Your task to perform on an android device: turn off notifications in google photos Image 0: 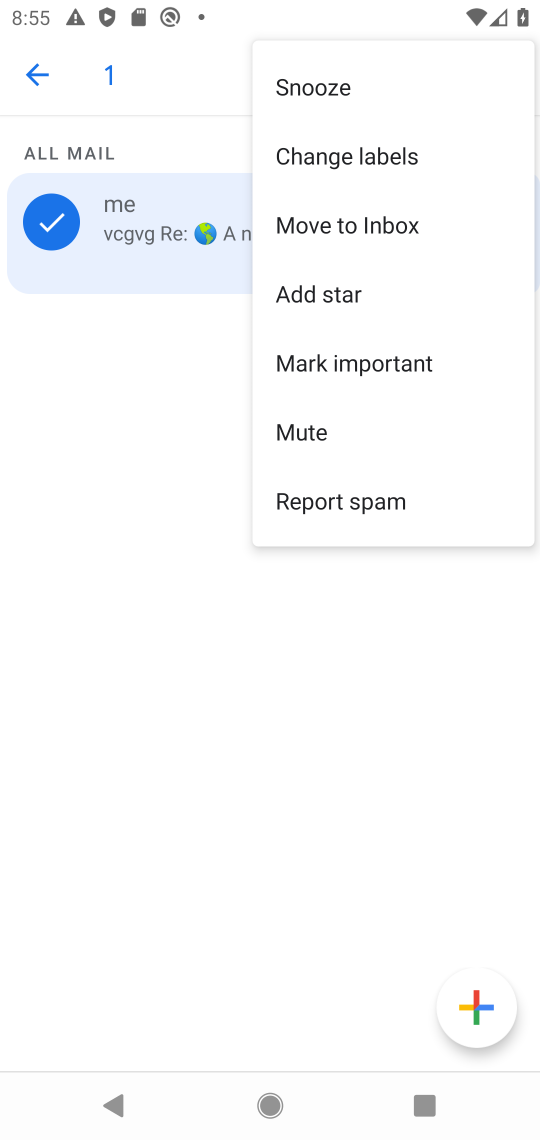
Step 0: press home button
Your task to perform on an android device: turn off notifications in google photos Image 1: 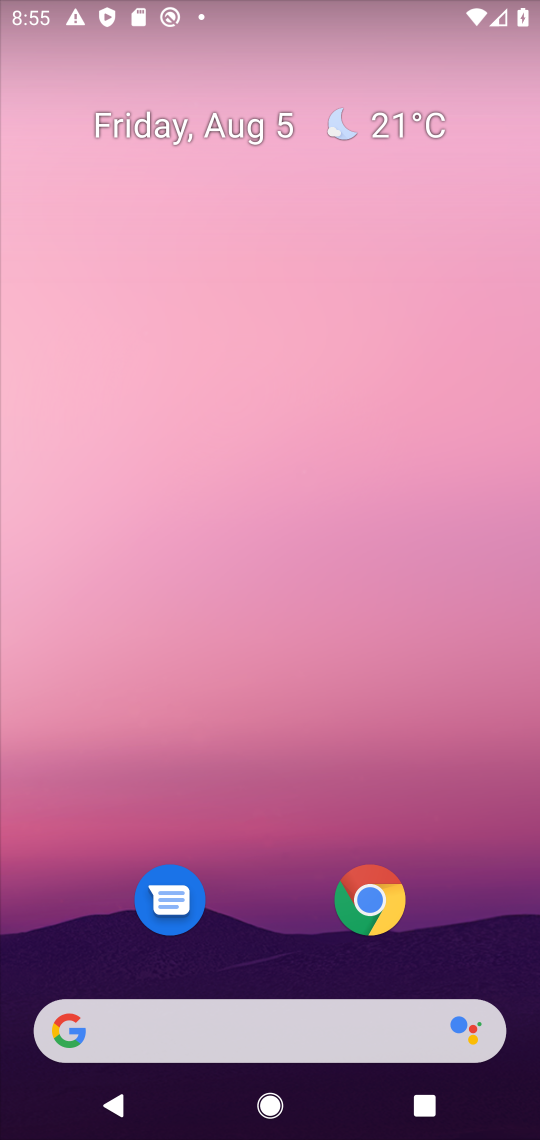
Step 1: drag from (266, 855) to (391, 71)
Your task to perform on an android device: turn off notifications in google photos Image 2: 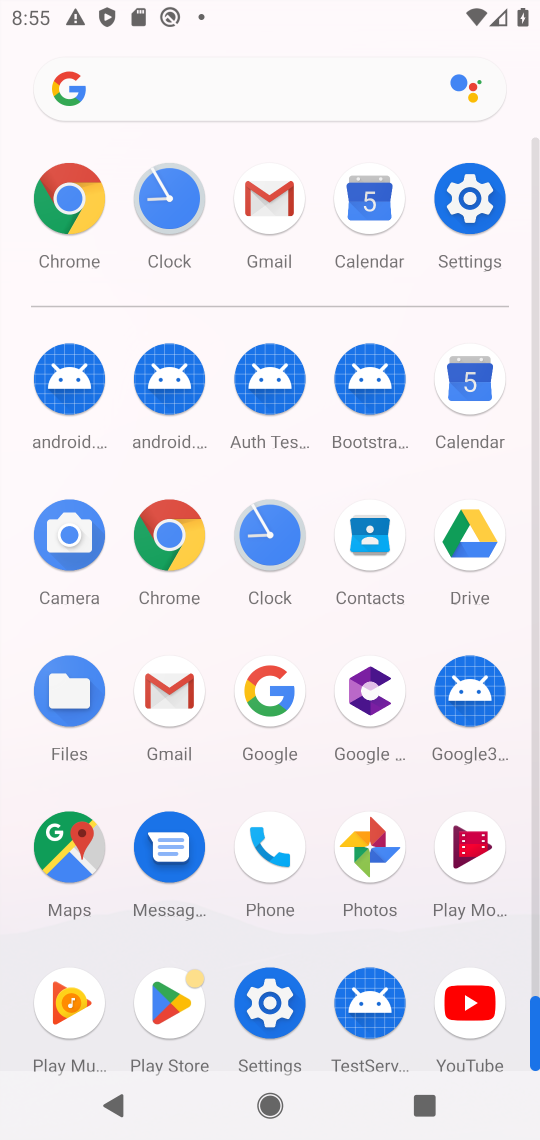
Step 2: click (378, 889)
Your task to perform on an android device: turn off notifications in google photos Image 3: 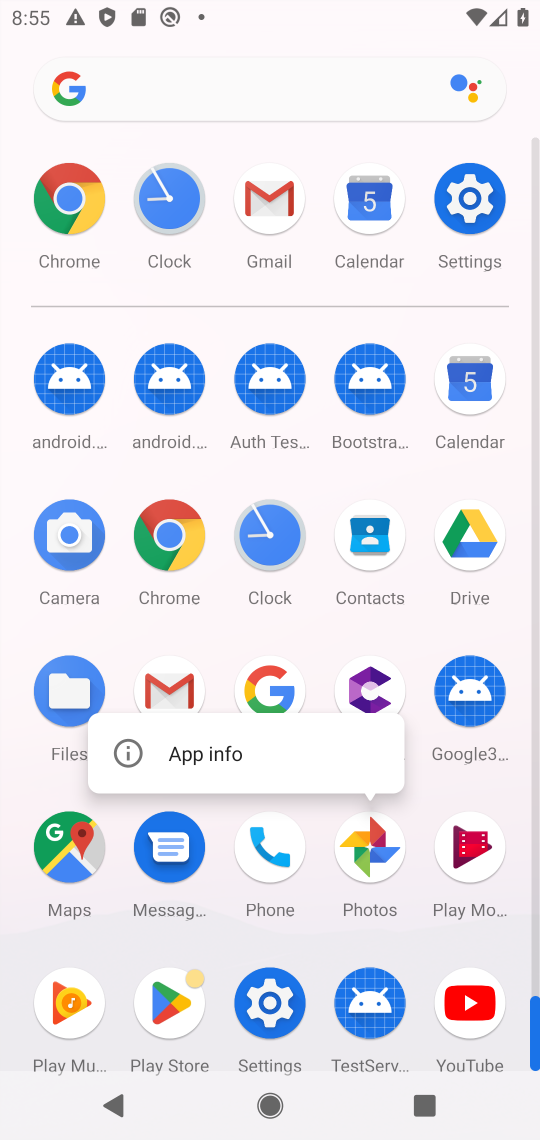
Step 3: click (217, 746)
Your task to perform on an android device: turn off notifications in google photos Image 4: 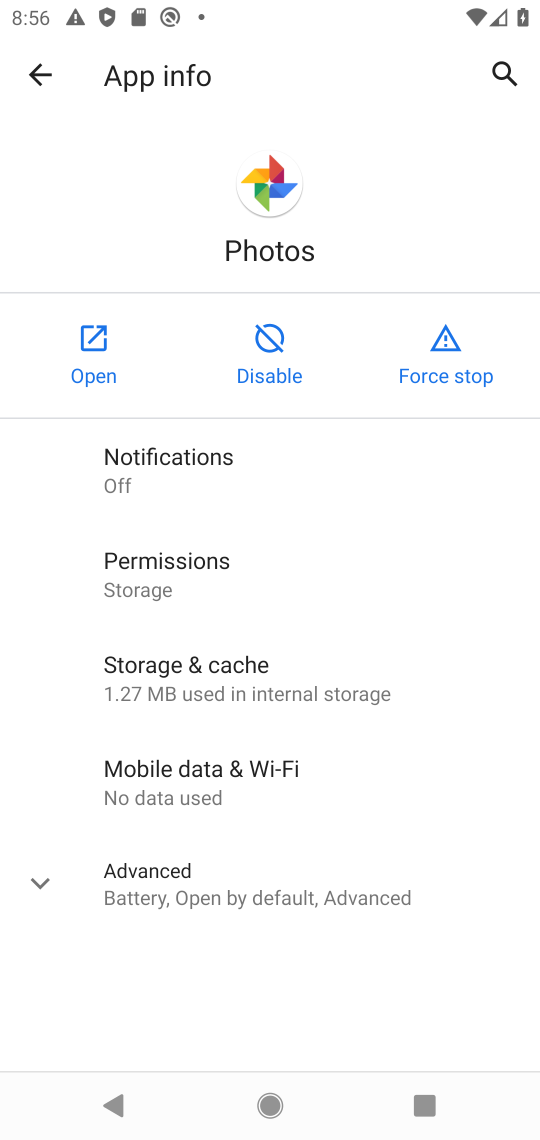
Step 4: task complete